Your task to perform on an android device: Open Google Chrome Image 0: 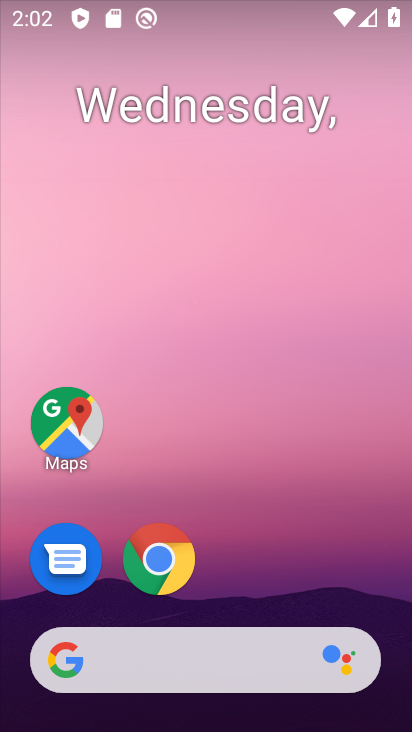
Step 0: click (166, 550)
Your task to perform on an android device: Open Google Chrome Image 1: 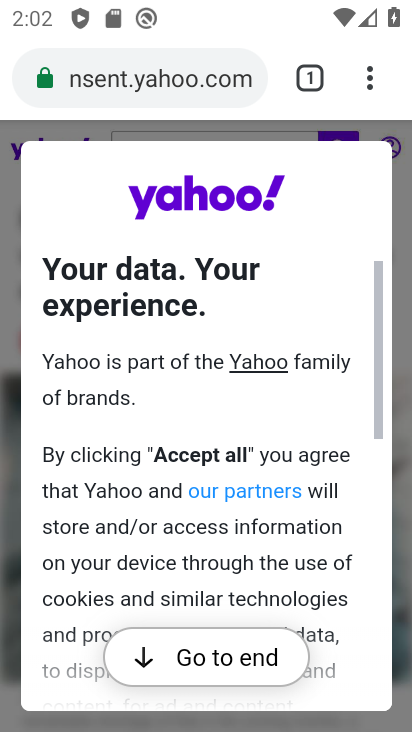
Step 1: task complete